Your task to perform on an android device: Search for seafood restaurants on Google Maps Image 0: 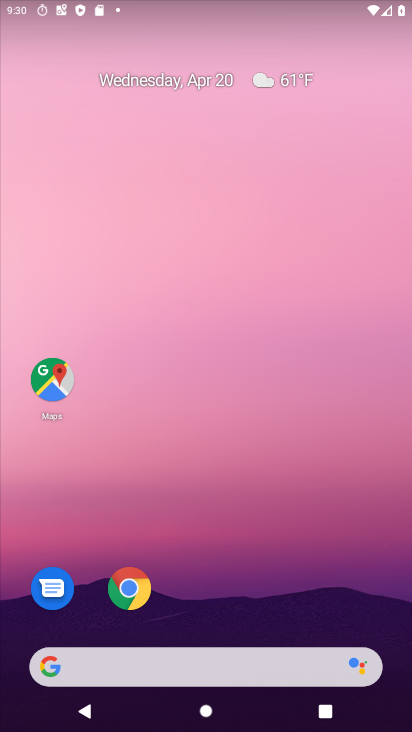
Step 0: drag from (212, 546) to (101, 8)
Your task to perform on an android device: Search for seafood restaurants on Google Maps Image 1: 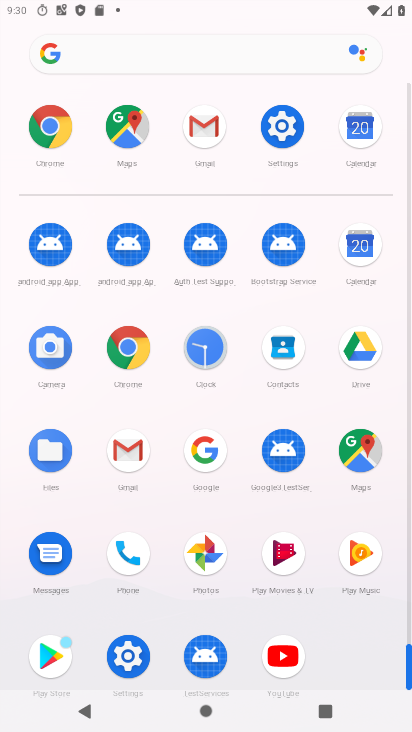
Step 1: click (354, 449)
Your task to perform on an android device: Search for seafood restaurants on Google Maps Image 2: 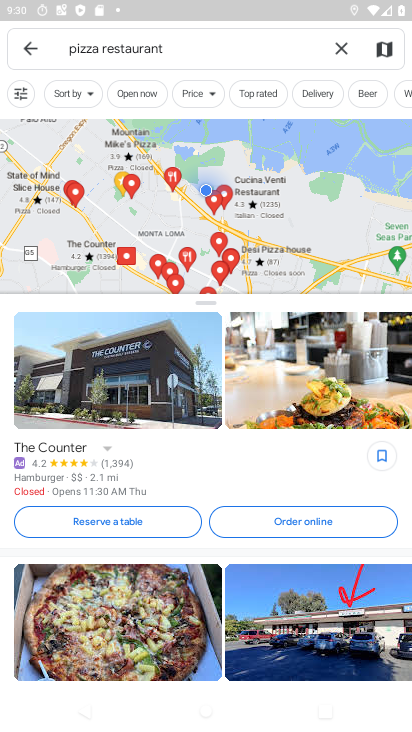
Step 2: click (334, 50)
Your task to perform on an android device: Search for seafood restaurants on Google Maps Image 3: 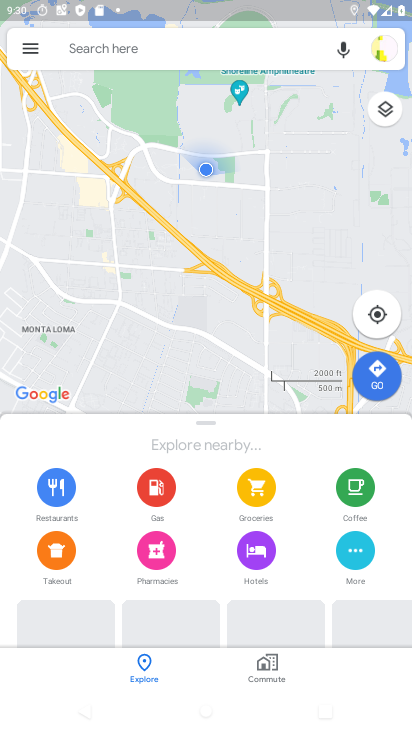
Step 3: click (185, 53)
Your task to perform on an android device: Search for seafood restaurants on Google Maps Image 4: 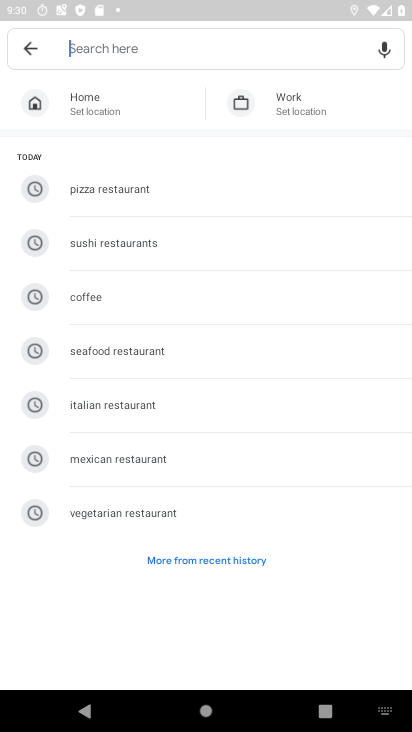
Step 4: click (118, 354)
Your task to perform on an android device: Search for seafood restaurants on Google Maps Image 5: 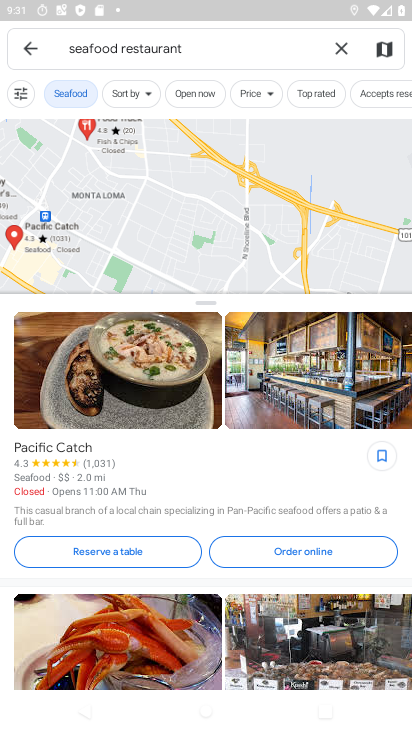
Step 5: task complete